Your task to perform on an android device: choose inbox layout in the gmail app Image 0: 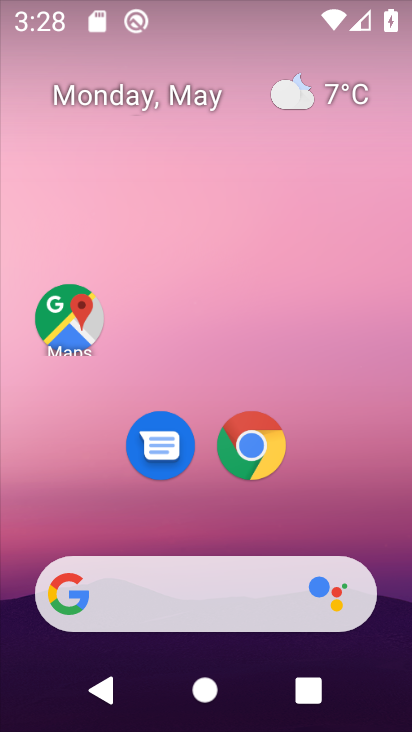
Step 0: drag from (321, 530) to (290, 16)
Your task to perform on an android device: choose inbox layout in the gmail app Image 1: 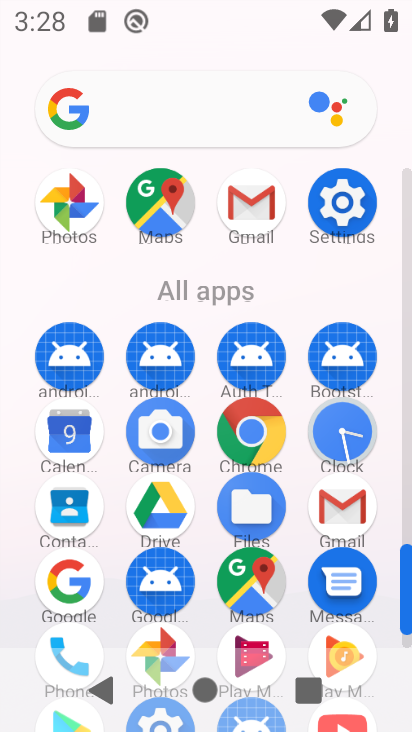
Step 1: click (348, 501)
Your task to perform on an android device: choose inbox layout in the gmail app Image 2: 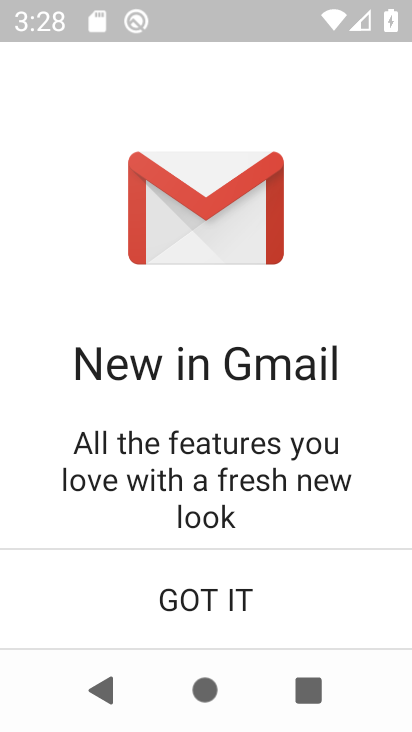
Step 2: click (250, 617)
Your task to perform on an android device: choose inbox layout in the gmail app Image 3: 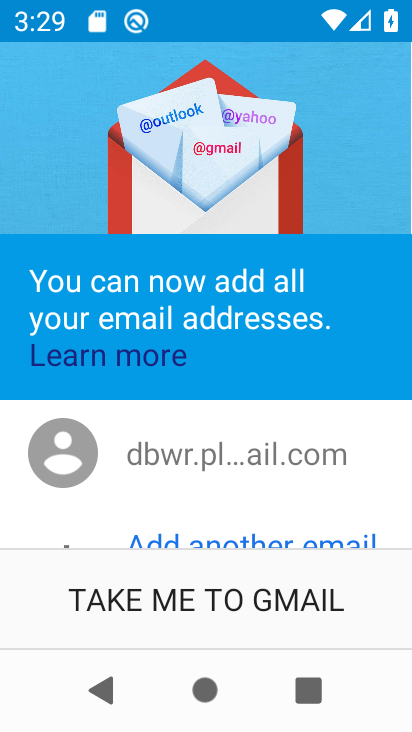
Step 3: click (206, 607)
Your task to perform on an android device: choose inbox layout in the gmail app Image 4: 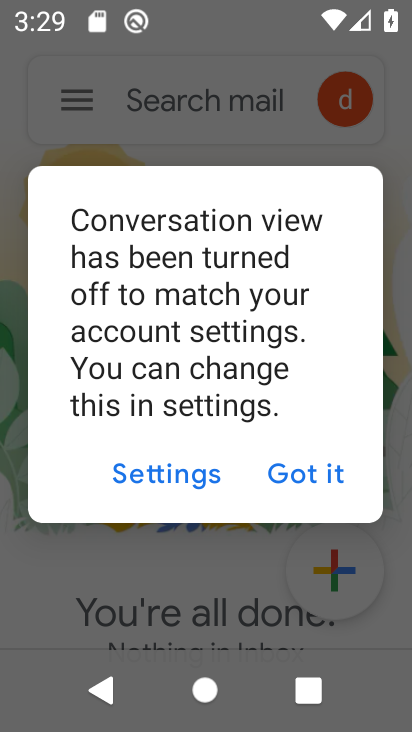
Step 4: click (303, 478)
Your task to perform on an android device: choose inbox layout in the gmail app Image 5: 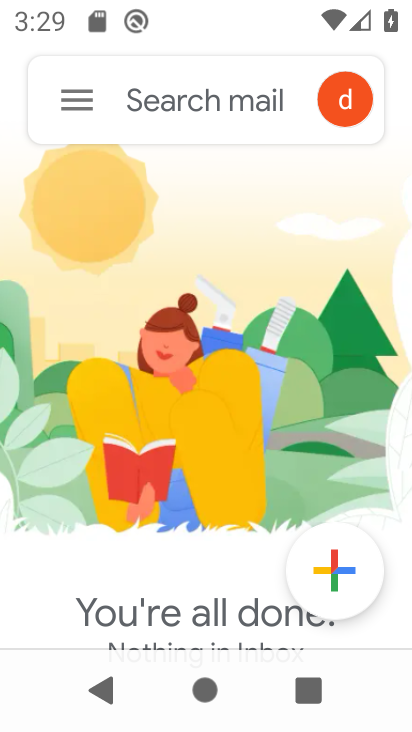
Step 5: click (69, 100)
Your task to perform on an android device: choose inbox layout in the gmail app Image 6: 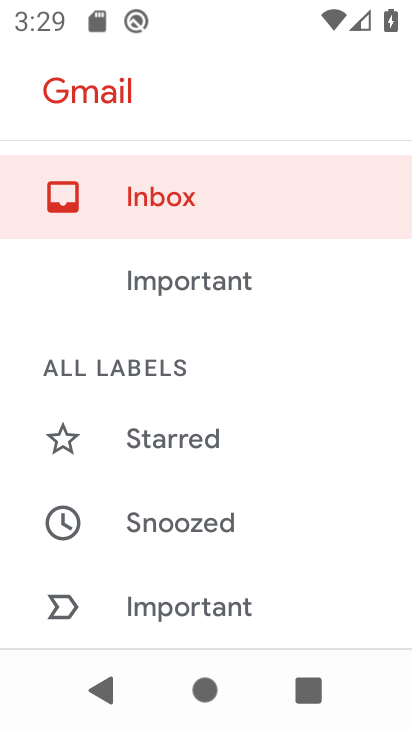
Step 6: drag from (172, 522) to (137, 144)
Your task to perform on an android device: choose inbox layout in the gmail app Image 7: 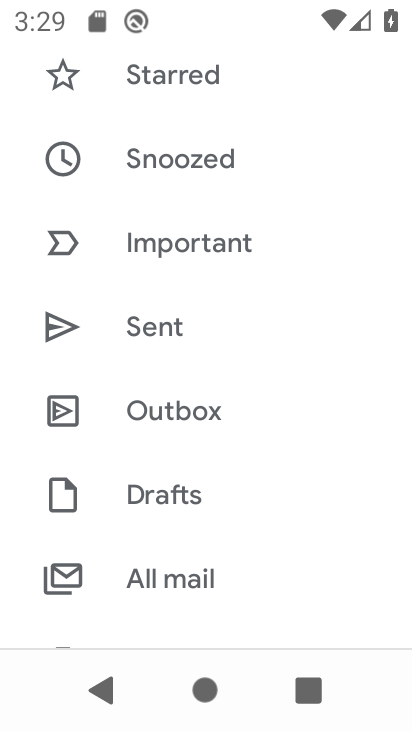
Step 7: drag from (161, 497) to (126, 109)
Your task to perform on an android device: choose inbox layout in the gmail app Image 8: 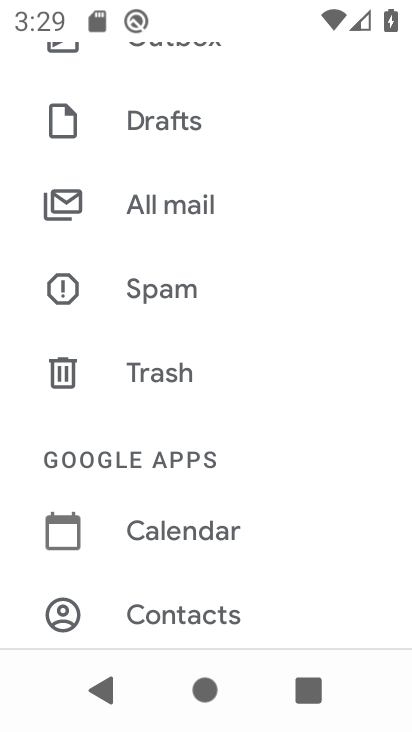
Step 8: drag from (134, 580) to (112, 104)
Your task to perform on an android device: choose inbox layout in the gmail app Image 9: 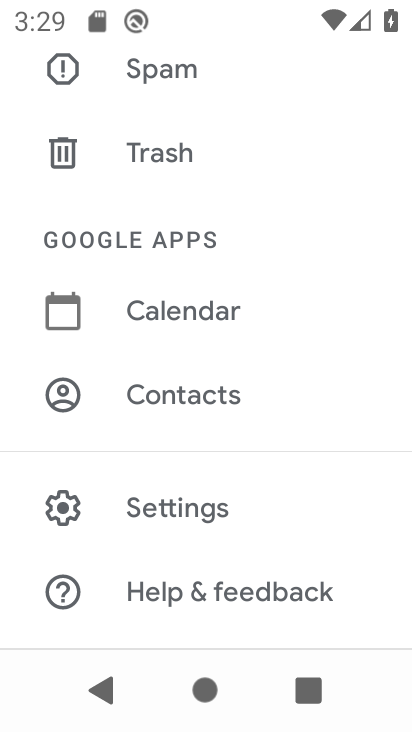
Step 9: click (126, 495)
Your task to perform on an android device: choose inbox layout in the gmail app Image 10: 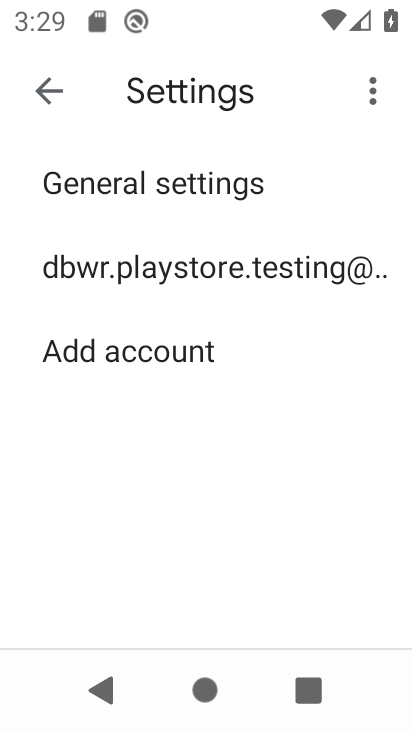
Step 10: click (160, 269)
Your task to perform on an android device: choose inbox layout in the gmail app Image 11: 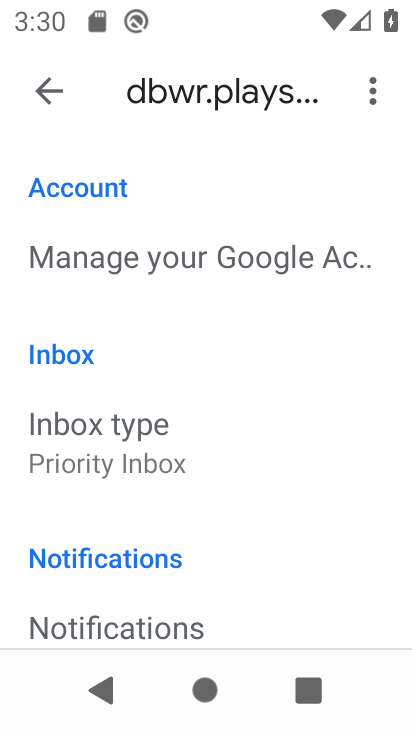
Step 11: click (190, 440)
Your task to perform on an android device: choose inbox layout in the gmail app Image 12: 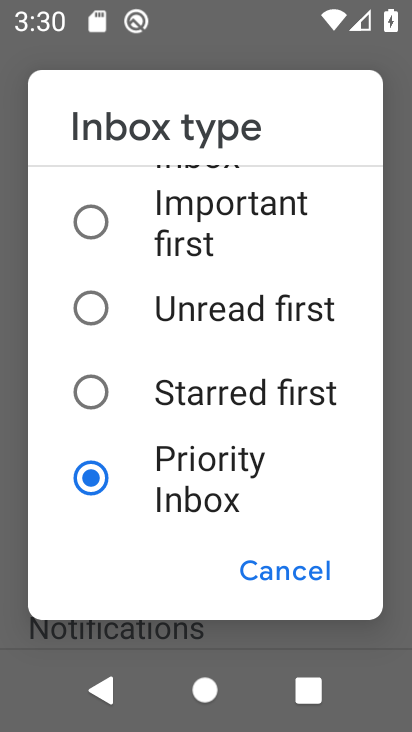
Step 12: drag from (145, 230) to (169, 449)
Your task to perform on an android device: choose inbox layout in the gmail app Image 13: 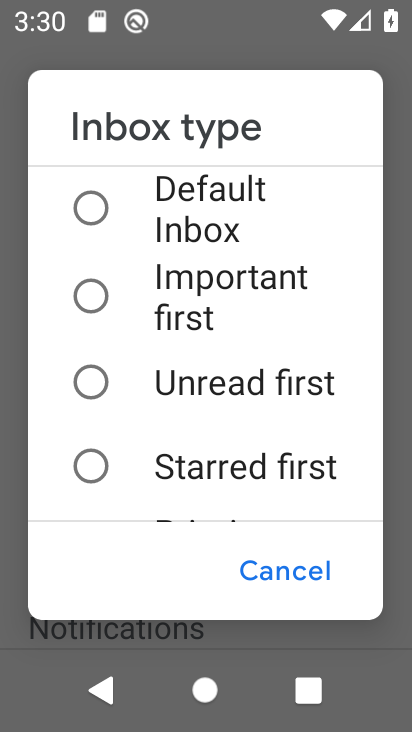
Step 13: click (152, 233)
Your task to perform on an android device: choose inbox layout in the gmail app Image 14: 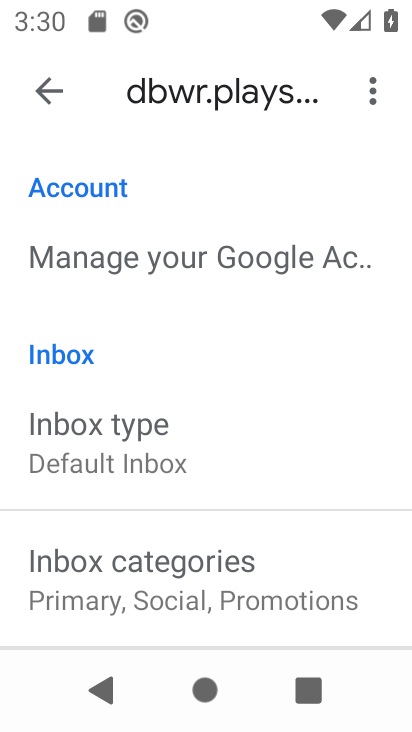
Step 14: task complete